Your task to perform on an android device: Open the web browser Image 0: 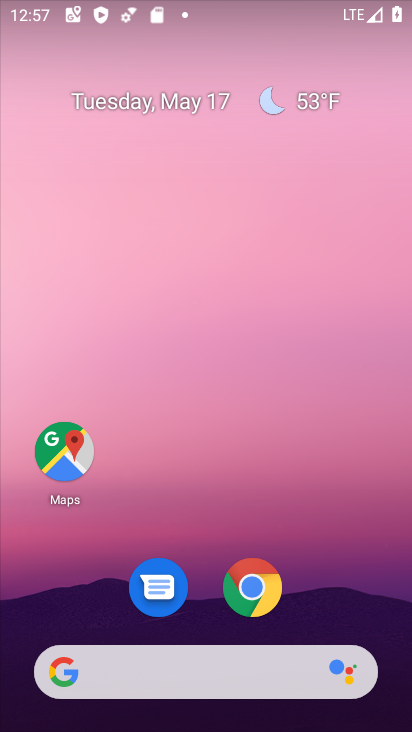
Step 0: click (225, 657)
Your task to perform on an android device: Open the web browser Image 1: 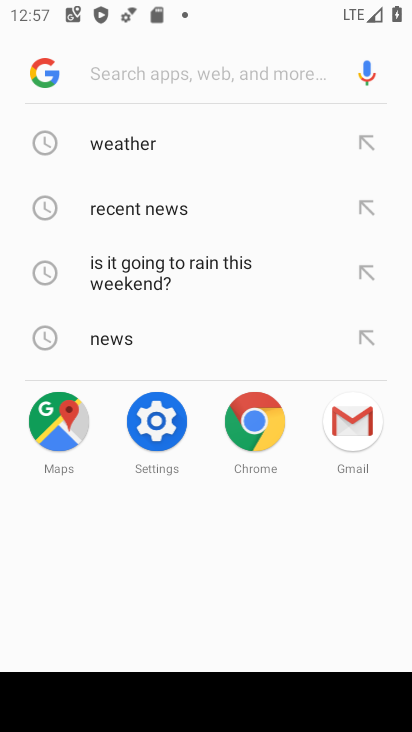
Step 1: task complete